Your task to perform on an android device: Search for "beats solo 3" on bestbuy.com, select the first entry, and add it to the cart. Image 0: 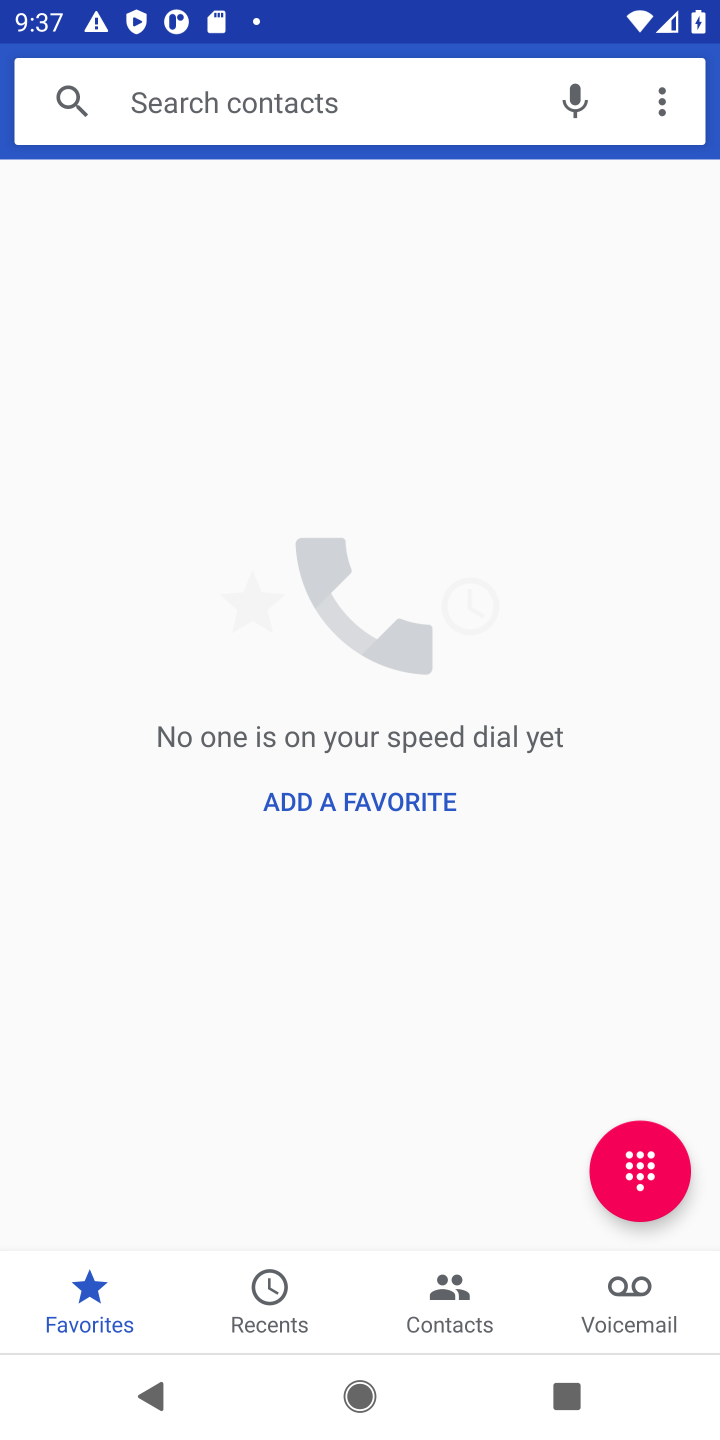
Step 0: press home button
Your task to perform on an android device: Search for "beats solo 3" on bestbuy.com, select the first entry, and add it to the cart. Image 1: 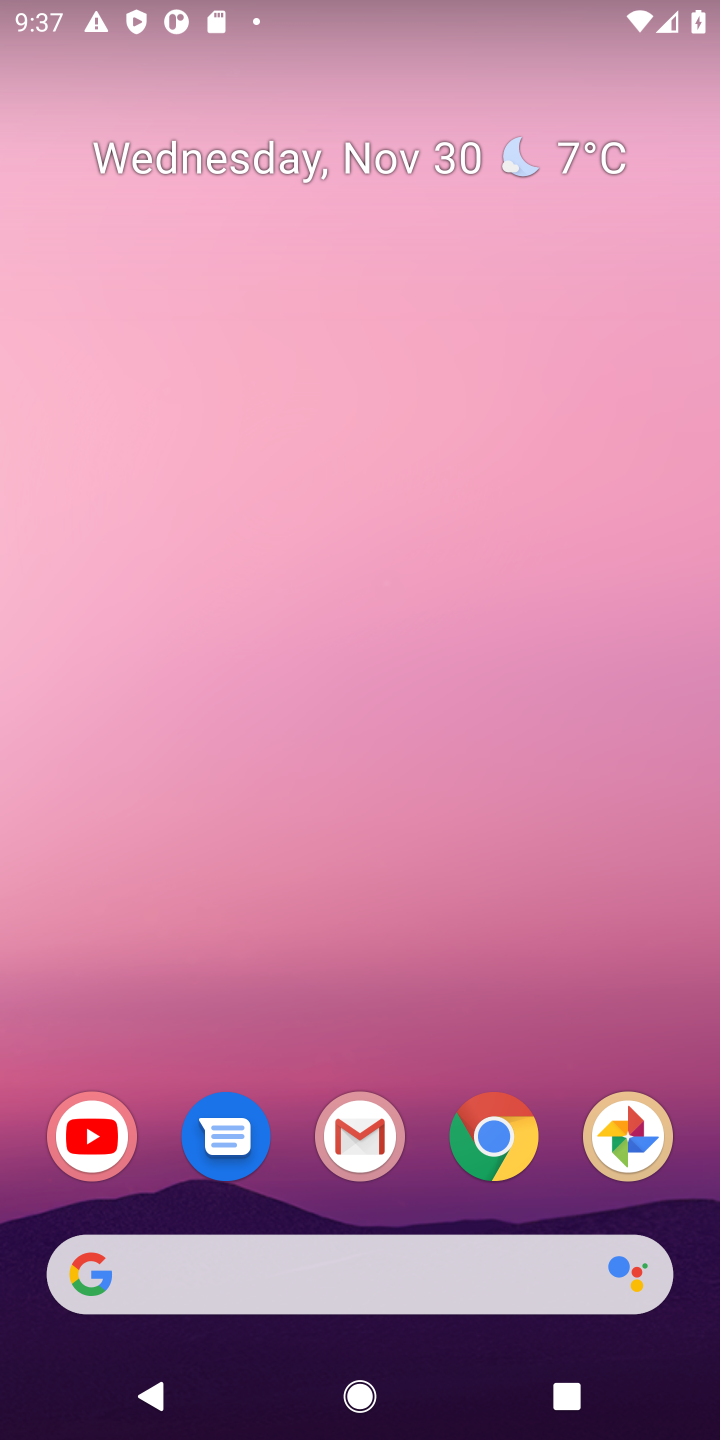
Step 1: click (504, 1137)
Your task to perform on an android device: Search for "beats solo 3" on bestbuy.com, select the first entry, and add it to the cart. Image 2: 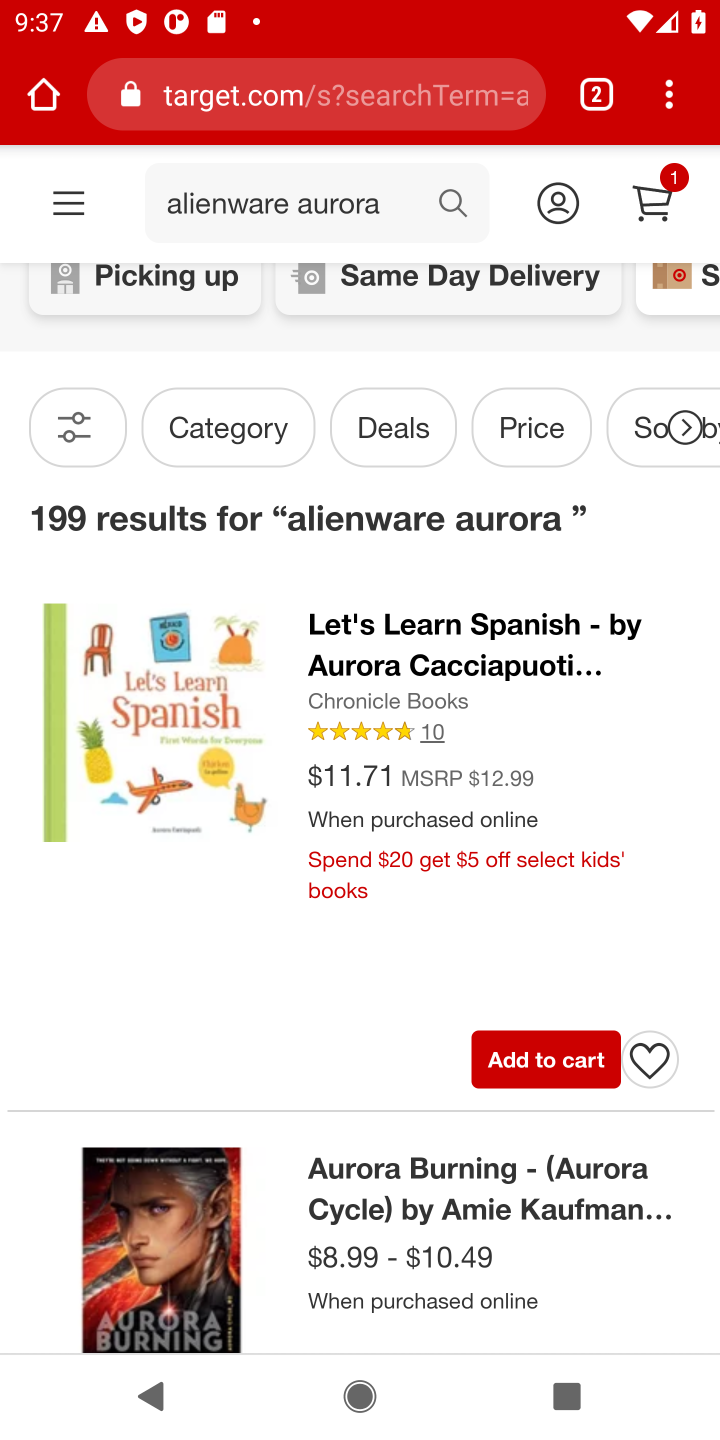
Step 2: click (308, 107)
Your task to perform on an android device: Search for "beats solo 3" on bestbuy.com, select the first entry, and add it to the cart. Image 3: 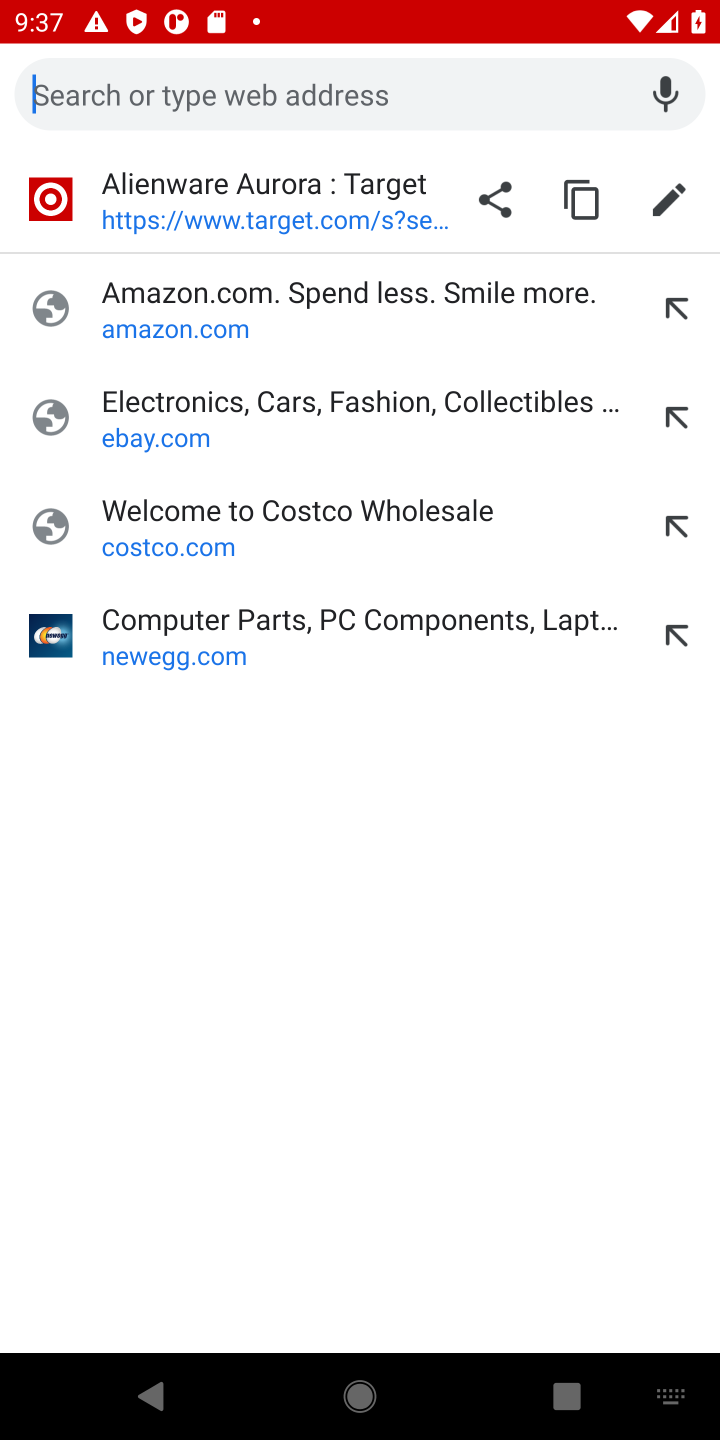
Step 3: type "bestbuy.com"
Your task to perform on an android device: Search for "beats solo 3" on bestbuy.com, select the first entry, and add it to the cart. Image 4: 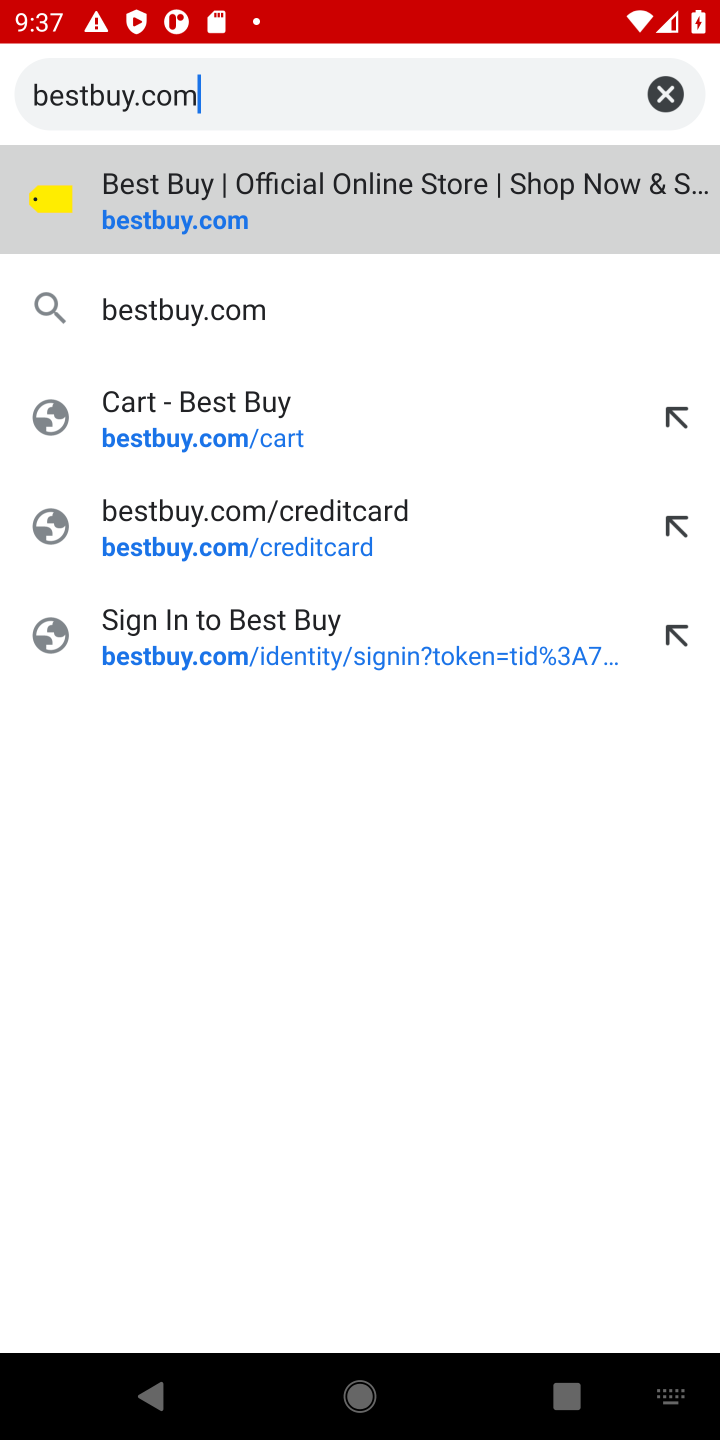
Step 4: click (134, 216)
Your task to perform on an android device: Search for "beats solo 3" on bestbuy.com, select the first entry, and add it to the cart. Image 5: 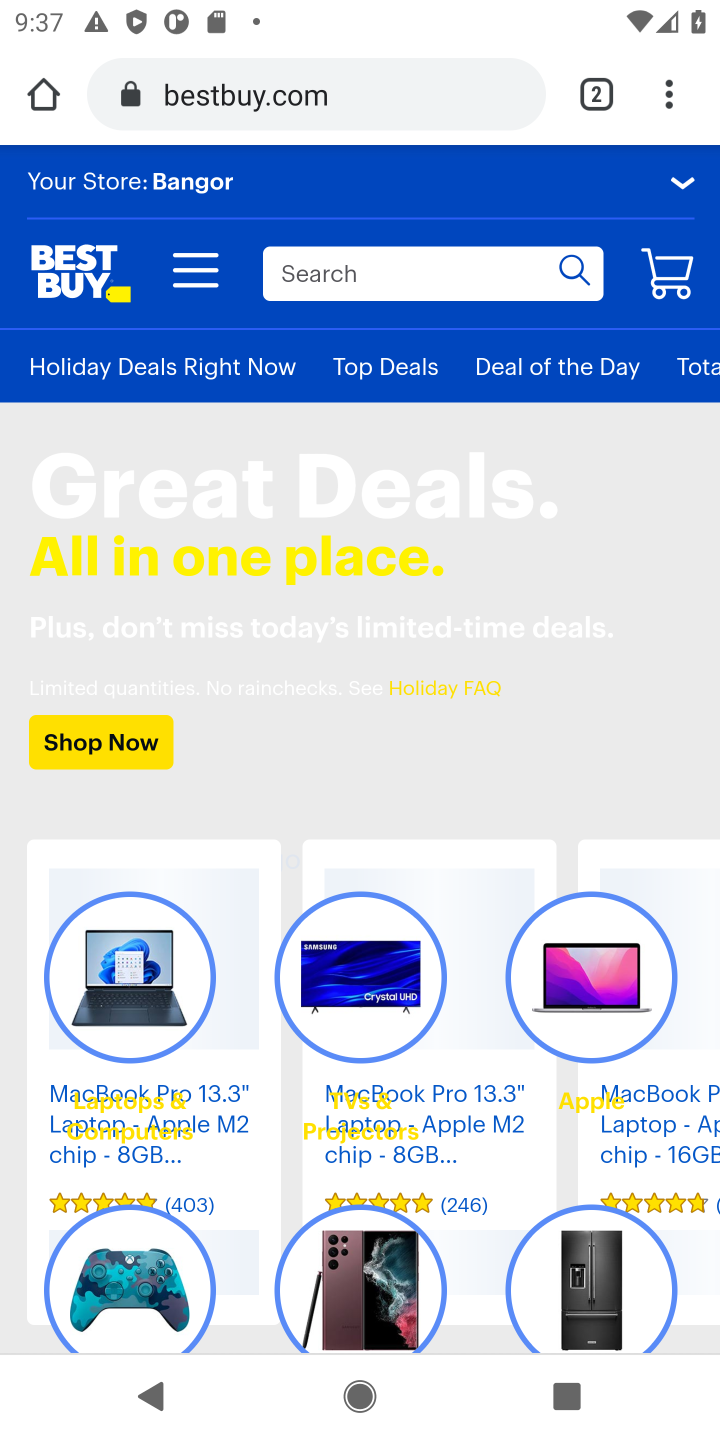
Step 5: click (357, 267)
Your task to perform on an android device: Search for "beats solo 3" on bestbuy.com, select the first entry, and add it to the cart. Image 6: 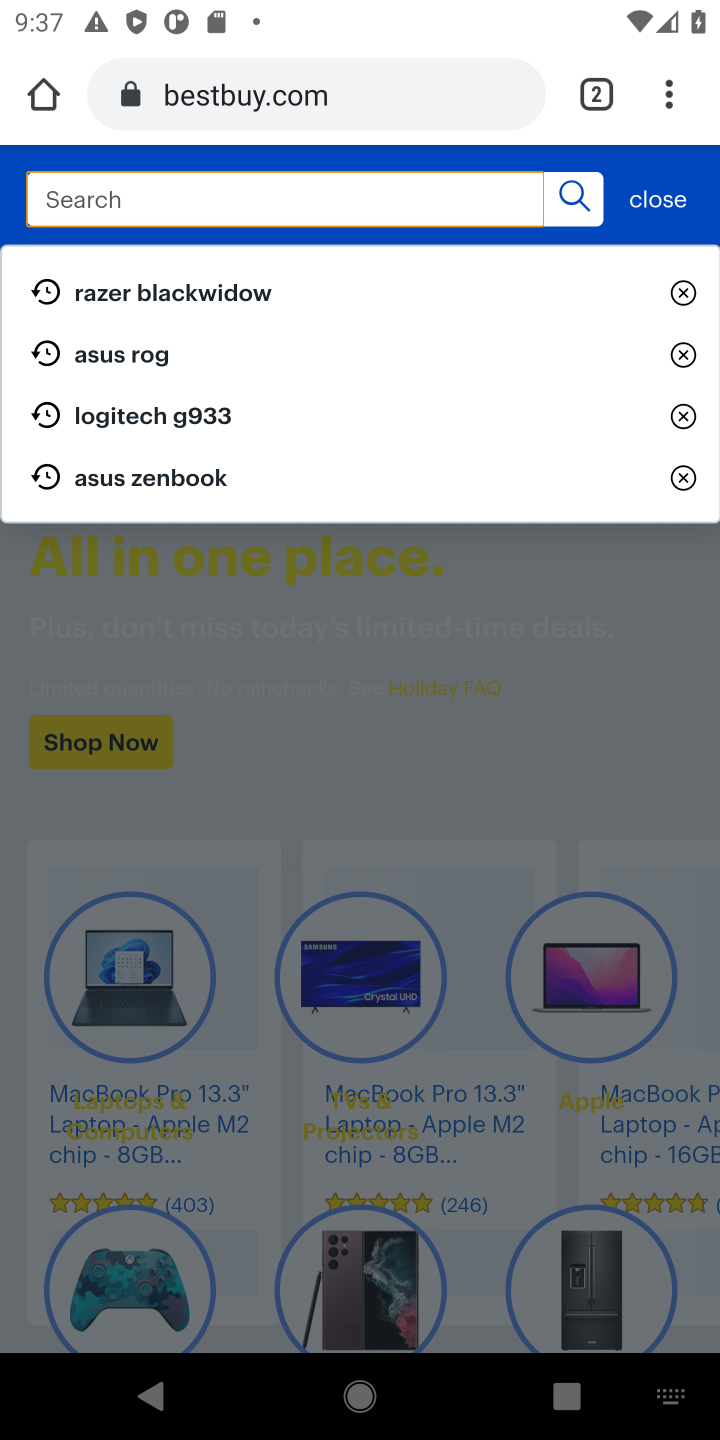
Step 6: type "beats solo 3"
Your task to perform on an android device: Search for "beats solo 3" on bestbuy.com, select the first entry, and add it to the cart. Image 7: 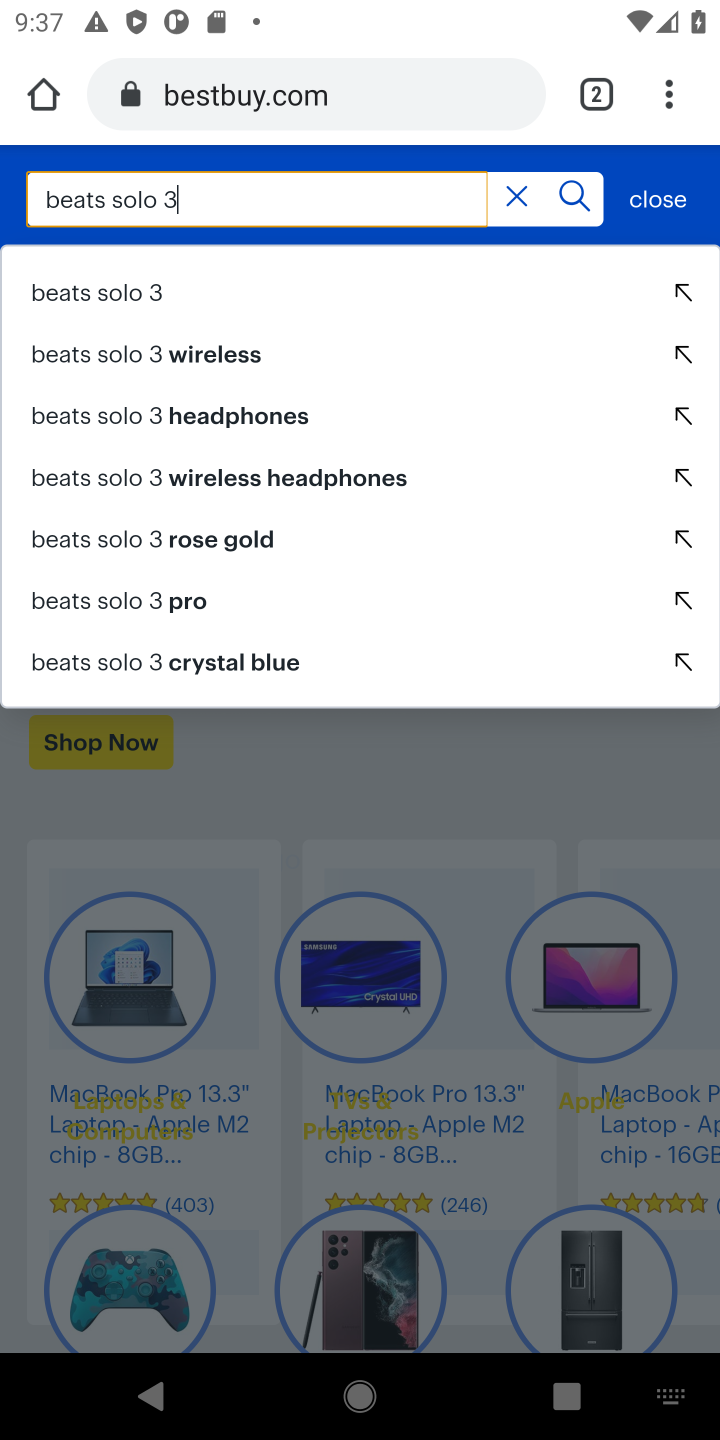
Step 7: click (92, 305)
Your task to perform on an android device: Search for "beats solo 3" on bestbuy.com, select the first entry, and add it to the cart. Image 8: 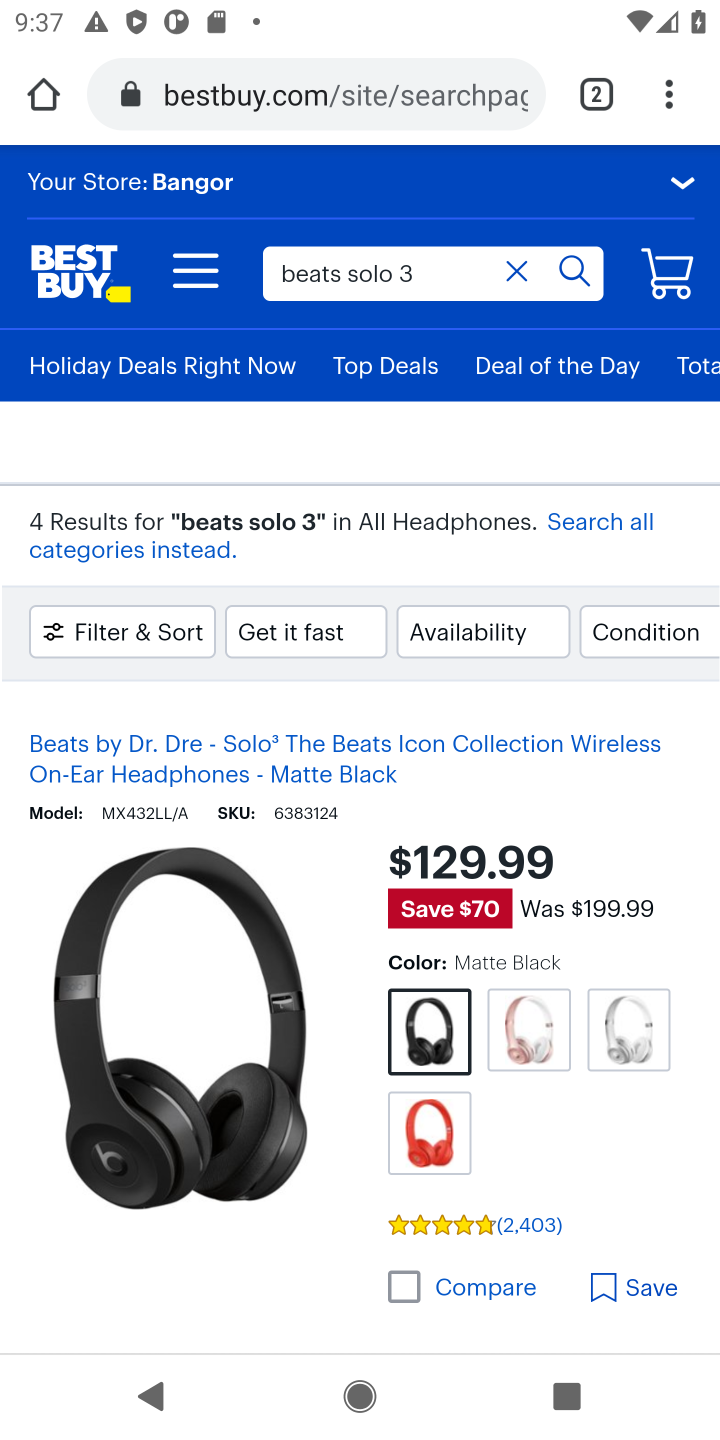
Step 8: drag from (262, 861) to (243, 545)
Your task to perform on an android device: Search for "beats solo 3" on bestbuy.com, select the first entry, and add it to the cart. Image 9: 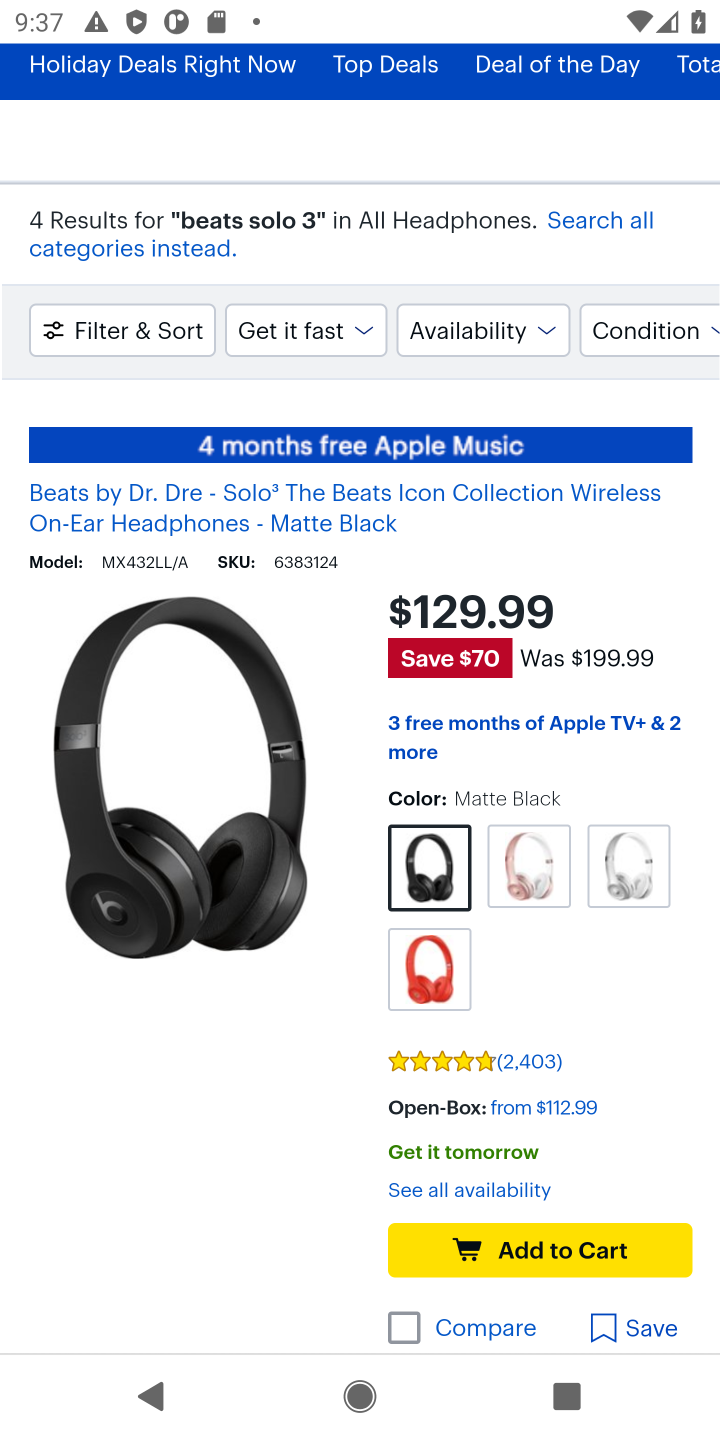
Step 9: click (545, 1215)
Your task to perform on an android device: Search for "beats solo 3" on bestbuy.com, select the first entry, and add it to the cart. Image 10: 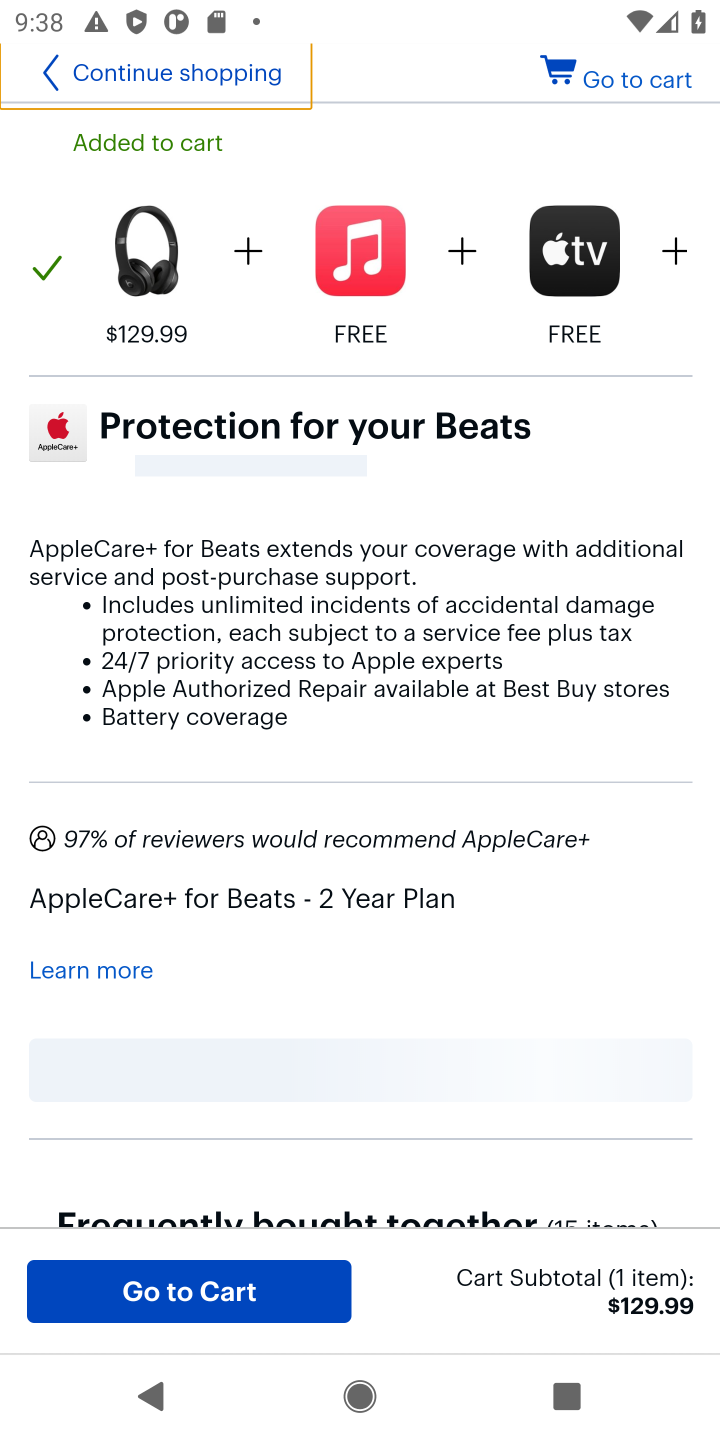
Step 10: task complete